Your task to perform on an android device: star an email in the gmail app Image 0: 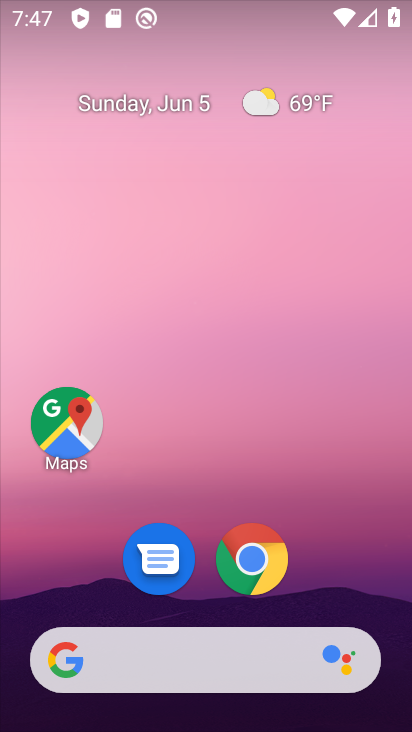
Step 0: drag from (357, 582) to (180, 90)
Your task to perform on an android device: star an email in the gmail app Image 1: 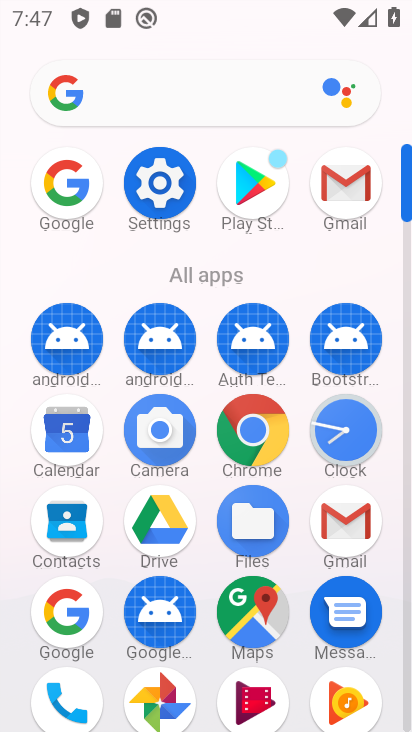
Step 1: click (347, 179)
Your task to perform on an android device: star an email in the gmail app Image 2: 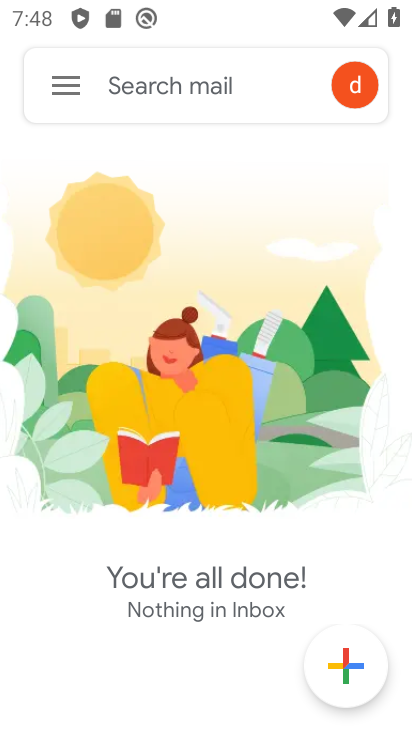
Step 2: click (58, 81)
Your task to perform on an android device: star an email in the gmail app Image 3: 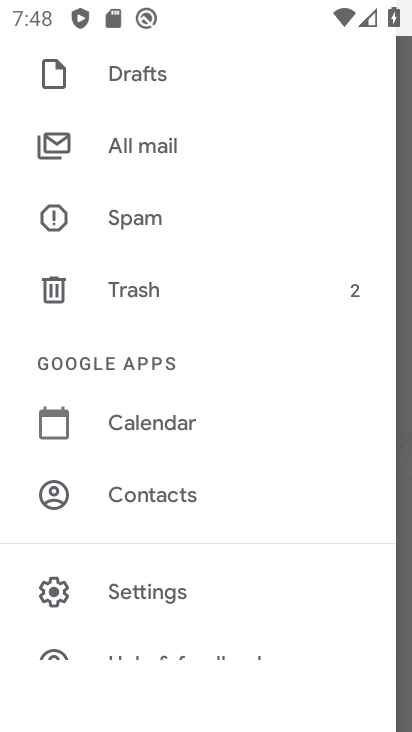
Step 3: drag from (291, 407) to (282, 665)
Your task to perform on an android device: star an email in the gmail app Image 4: 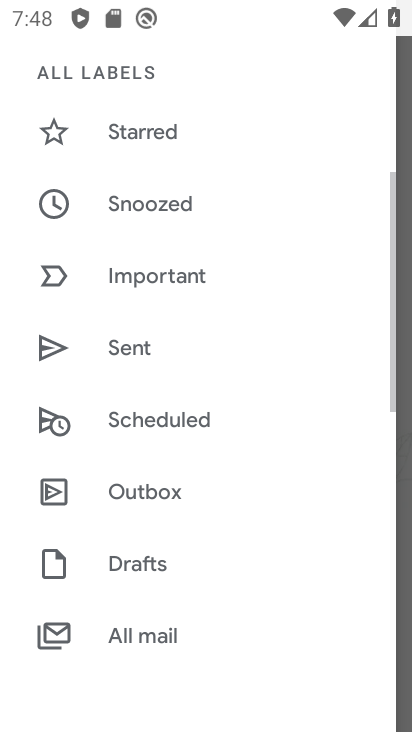
Step 4: drag from (236, 211) to (242, 619)
Your task to perform on an android device: star an email in the gmail app Image 5: 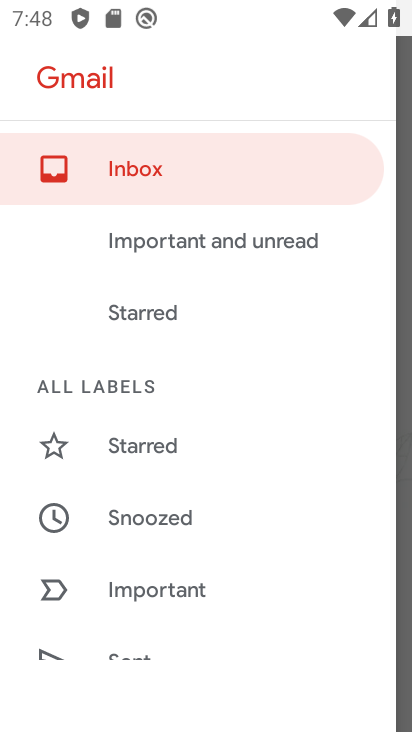
Step 5: drag from (212, 572) to (230, 141)
Your task to perform on an android device: star an email in the gmail app Image 6: 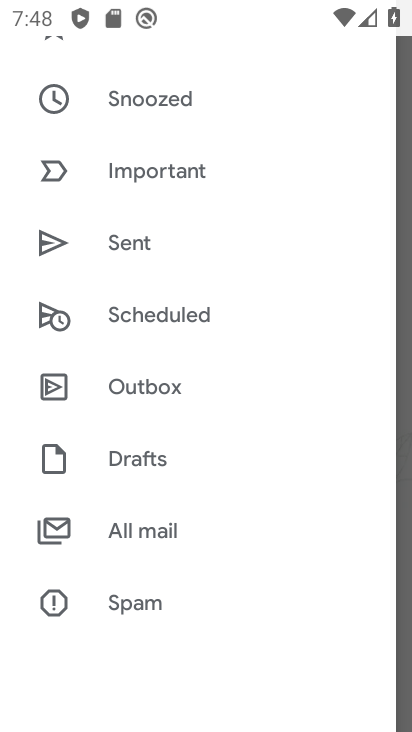
Step 6: click (134, 547)
Your task to perform on an android device: star an email in the gmail app Image 7: 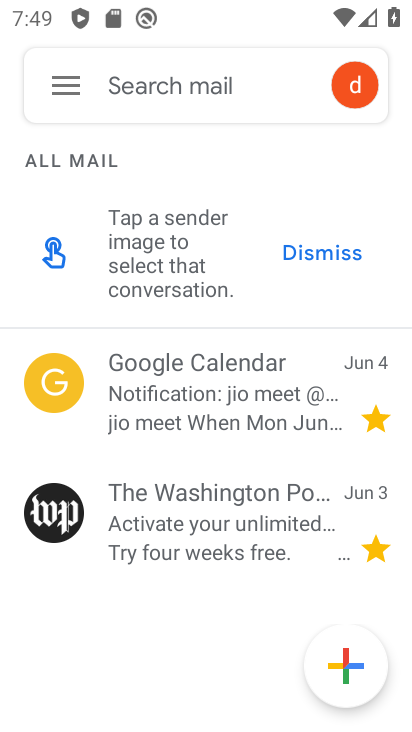
Step 7: task complete